Your task to perform on an android device: Show me popular videos on Youtube Image 0: 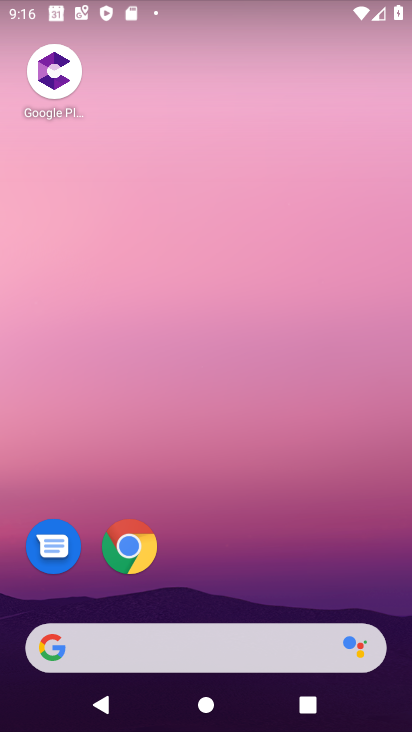
Step 0: drag from (252, 578) to (250, 103)
Your task to perform on an android device: Show me popular videos on Youtube Image 1: 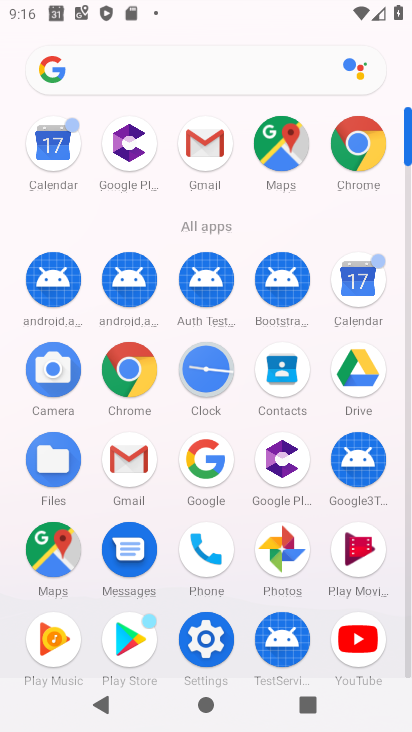
Step 1: click (368, 624)
Your task to perform on an android device: Show me popular videos on Youtube Image 2: 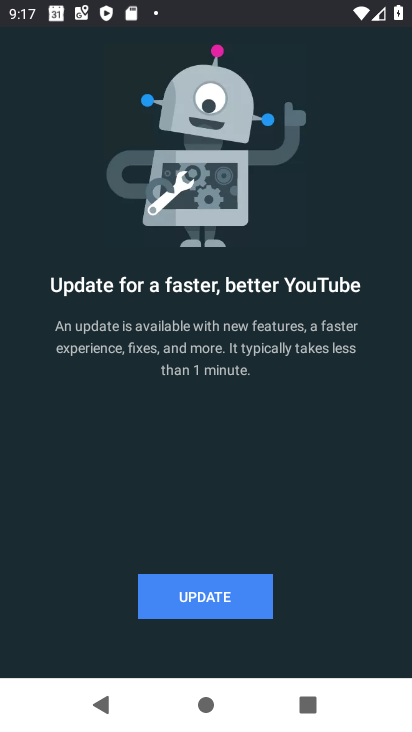
Step 2: click (194, 599)
Your task to perform on an android device: Show me popular videos on Youtube Image 3: 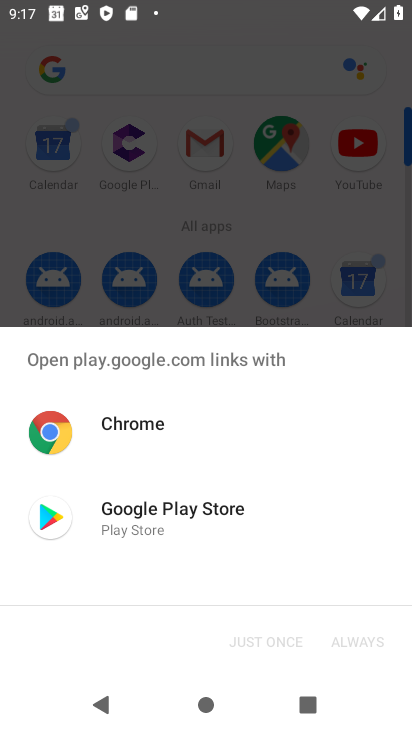
Step 3: click (138, 532)
Your task to perform on an android device: Show me popular videos on Youtube Image 4: 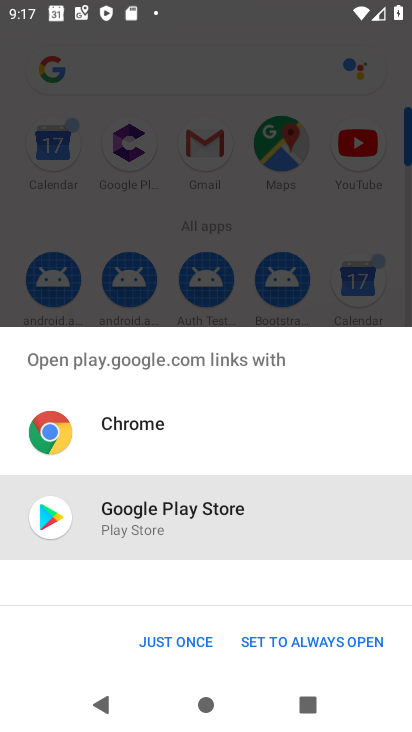
Step 4: click (146, 632)
Your task to perform on an android device: Show me popular videos on Youtube Image 5: 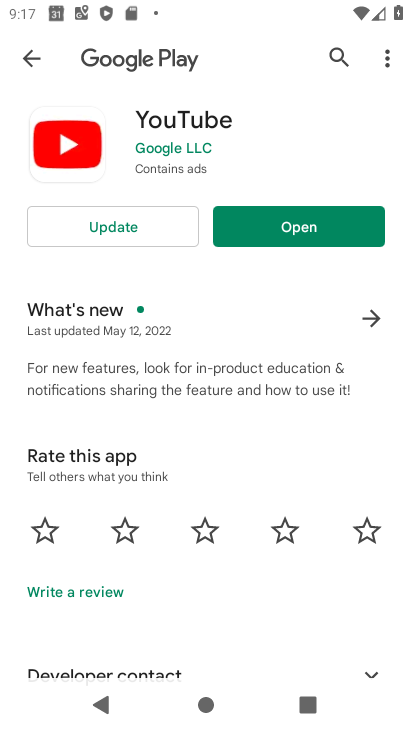
Step 5: click (147, 222)
Your task to perform on an android device: Show me popular videos on Youtube Image 6: 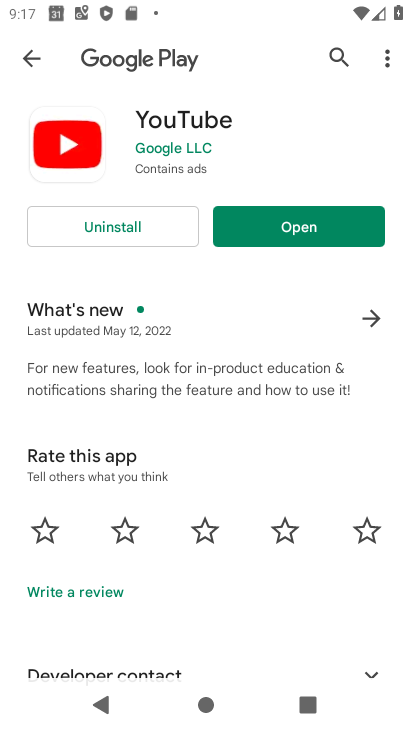
Step 6: click (258, 235)
Your task to perform on an android device: Show me popular videos on Youtube Image 7: 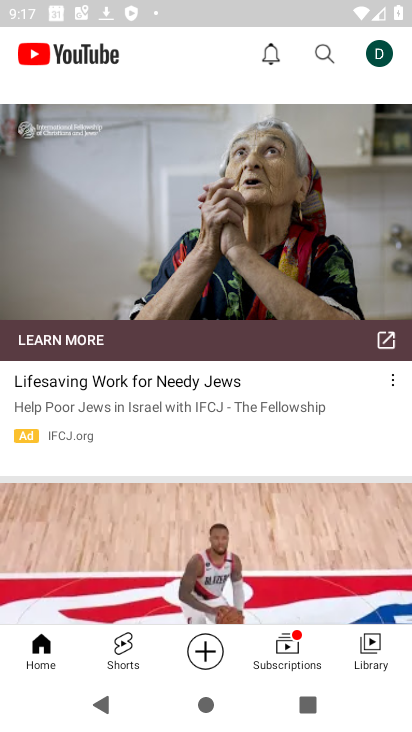
Step 7: drag from (60, 160) to (123, 434)
Your task to perform on an android device: Show me popular videos on Youtube Image 8: 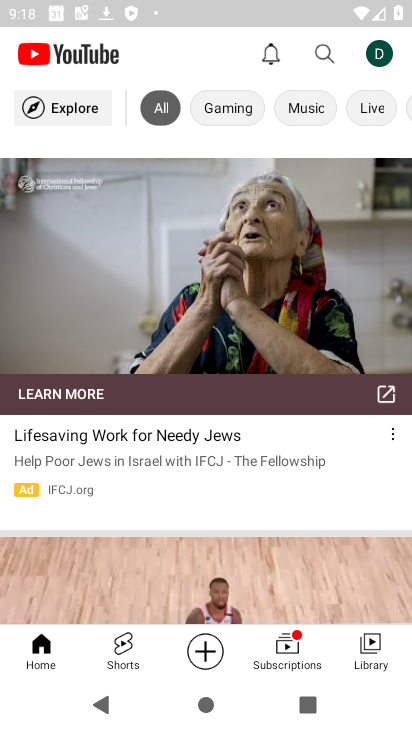
Step 8: click (76, 104)
Your task to perform on an android device: Show me popular videos on Youtube Image 9: 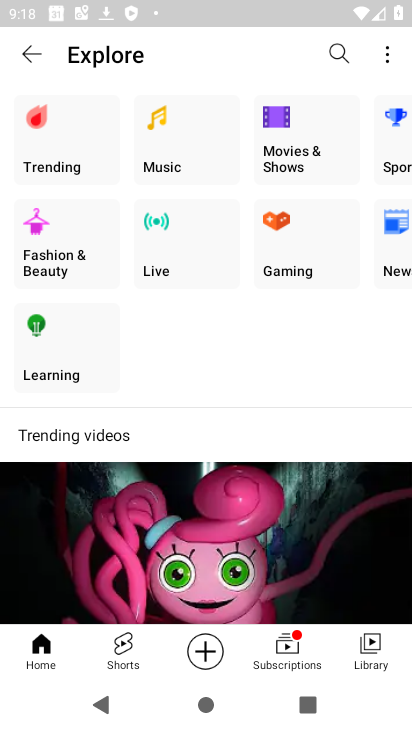
Step 9: click (31, 141)
Your task to perform on an android device: Show me popular videos on Youtube Image 10: 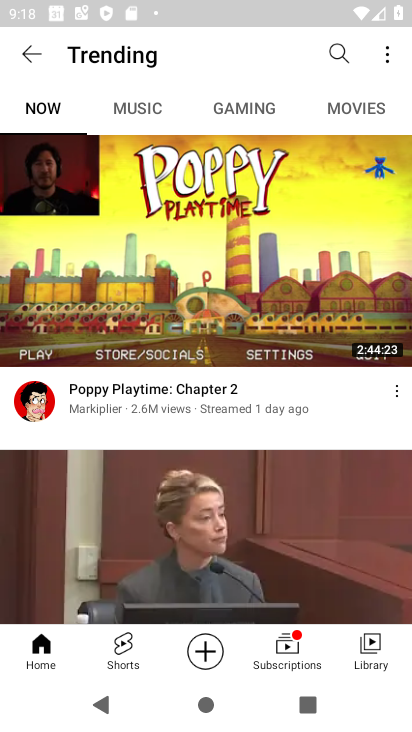
Step 10: task complete